Your task to perform on an android device: open chrome privacy settings Image 0: 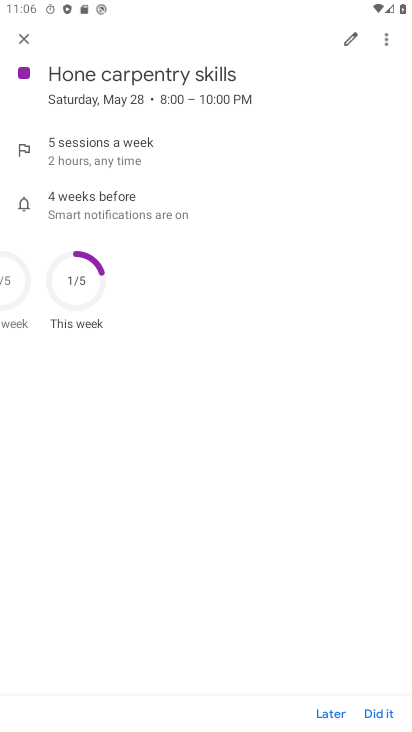
Step 0: press home button
Your task to perform on an android device: open chrome privacy settings Image 1: 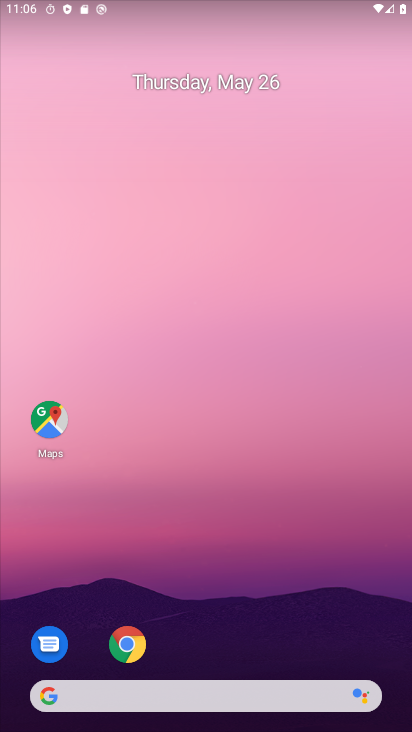
Step 1: click (133, 655)
Your task to perform on an android device: open chrome privacy settings Image 2: 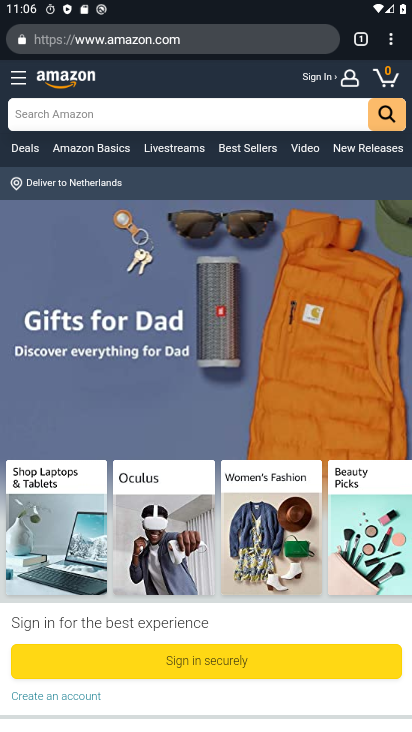
Step 2: click (392, 35)
Your task to perform on an android device: open chrome privacy settings Image 3: 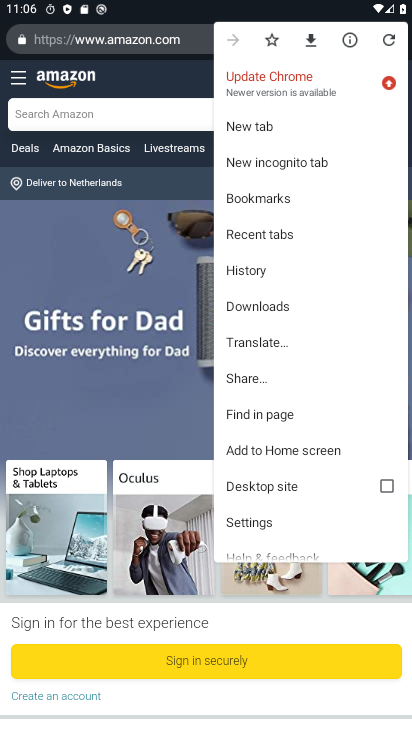
Step 3: click (256, 522)
Your task to perform on an android device: open chrome privacy settings Image 4: 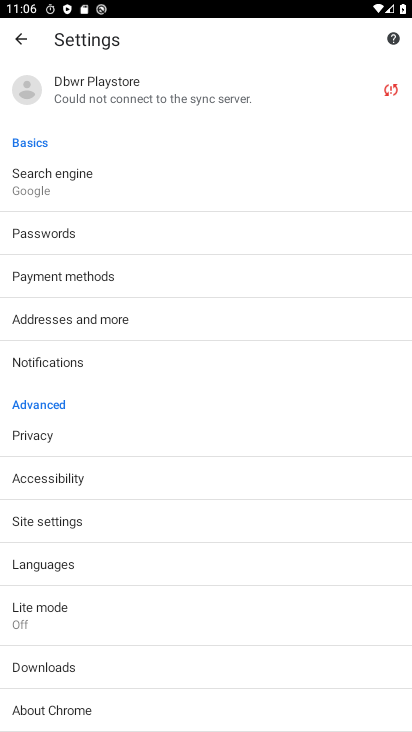
Step 4: click (45, 433)
Your task to perform on an android device: open chrome privacy settings Image 5: 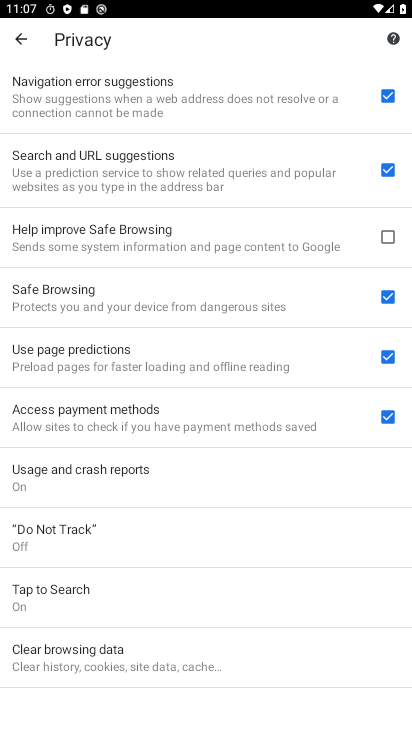
Step 5: task complete